Your task to perform on an android device: change the clock display to show seconds Image 0: 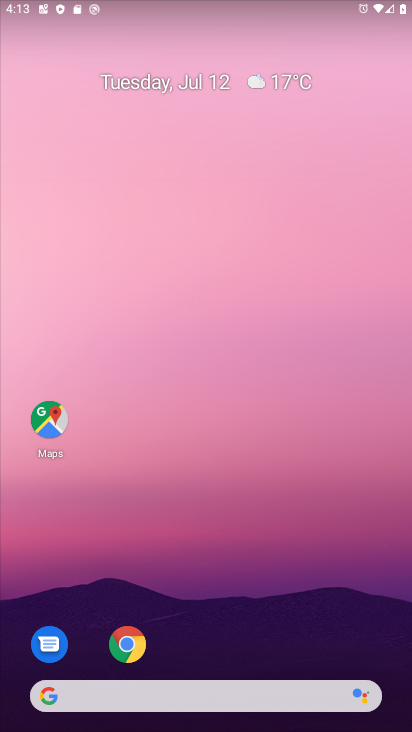
Step 0: drag from (281, 644) to (232, 184)
Your task to perform on an android device: change the clock display to show seconds Image 1: 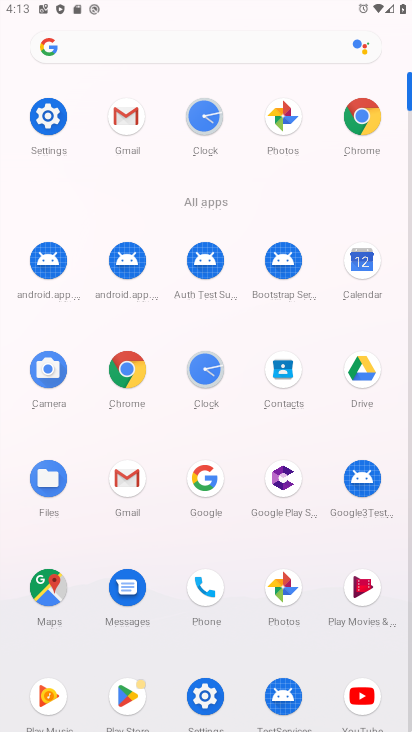
Step 1: click (200, 130)
Your task to perform on an android device: change the clock display to show seconds Image 2: 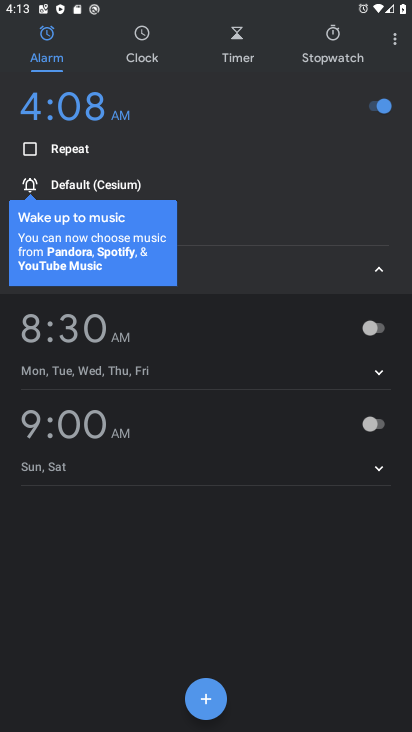
Step 2: click (394, 35)
Your task to perform on an android device: change the clock display to show seconds Image 3: 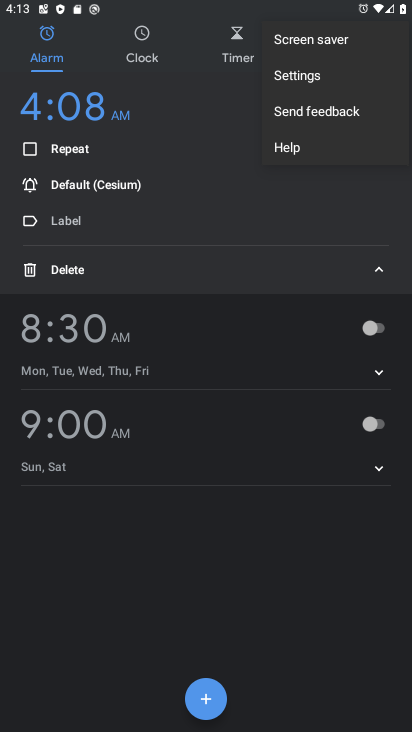
Step 3: click (326, 79)
Your task to perform on an android device: change the clock display to show seconds Image 4: 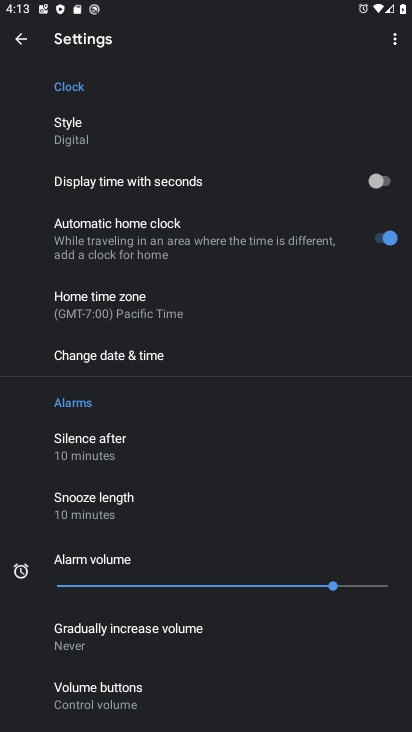
Step 4: click (386, 188)
Your task to perform on an android device: change the clock display to show seconds Image 5: 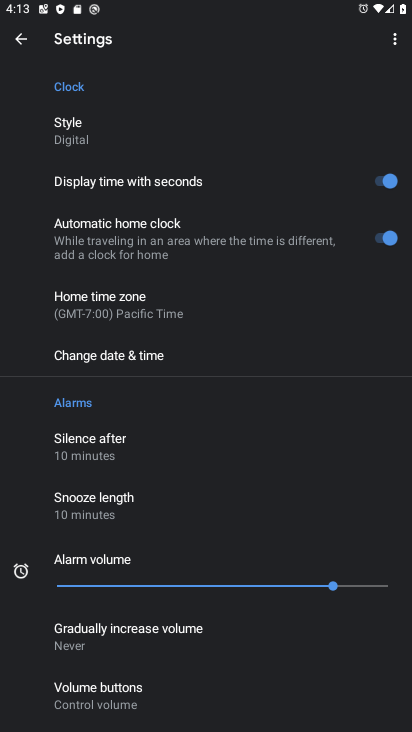
Step 5: task complete